Your task to perform on an android device: turn notification dots off Image 0: 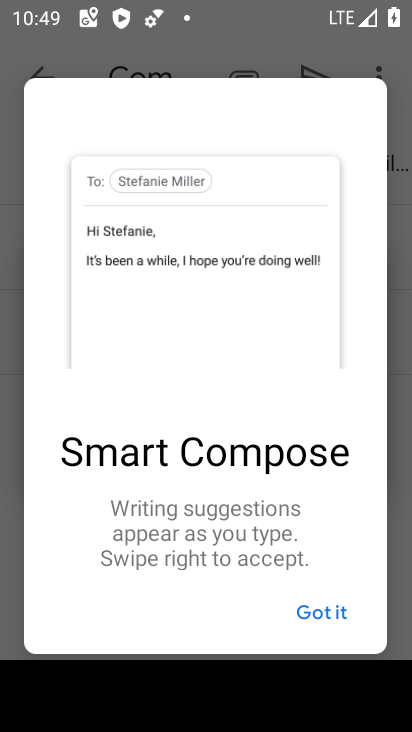
Step 0: press home button
Your task to perform on an android device: turn notification dots off Image 1: 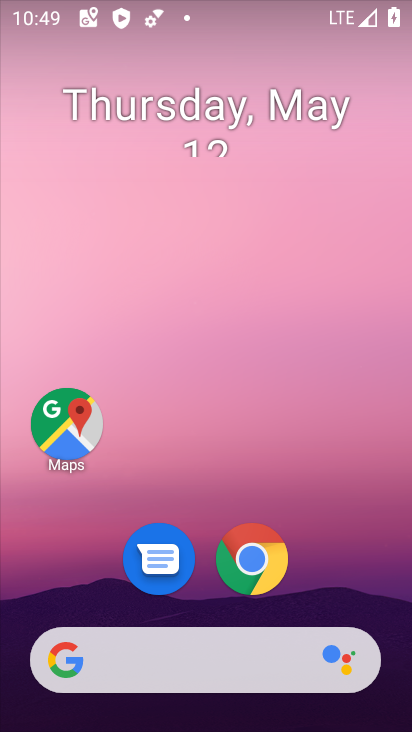
Step 1: drag from (198, 610) to (211, 230)
Your task to perform on an android device: turn notification dots off Image 2: 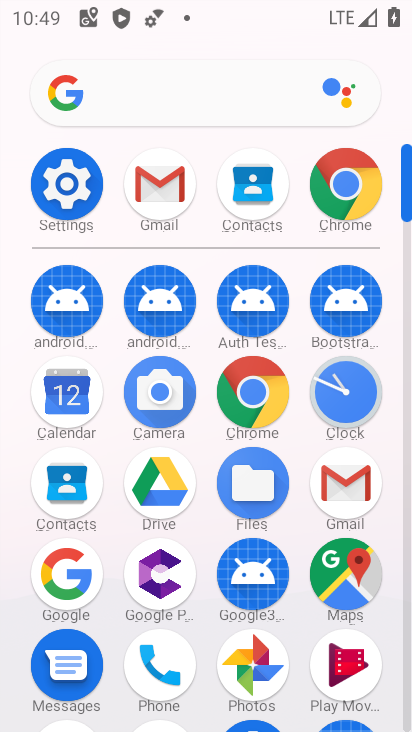
Step 2: click (44, 192)
Your task to perform on an android device: turn notification dots off Image 3: 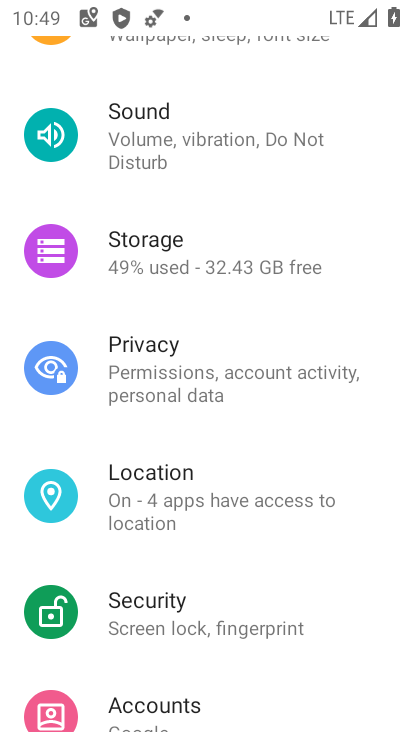
Step 3: drag from (217, 221) to (217, 413)
Your task to perform on an android device: turn notification dots off Image 4: 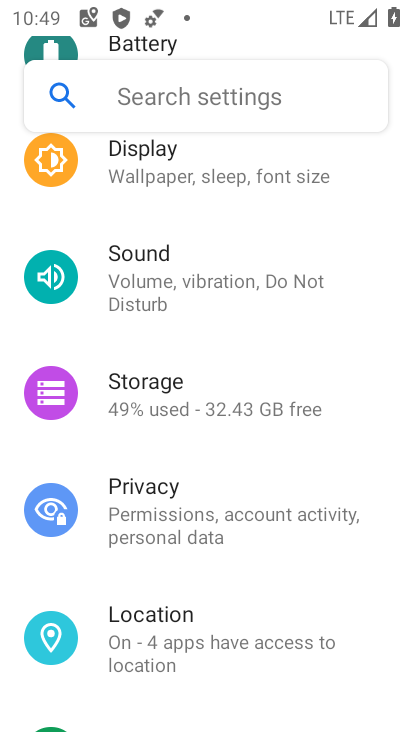
Step 4: drag from (222, 202) to (224, 453)
Your task to perform on an android device: turn notification dots off Image 5: 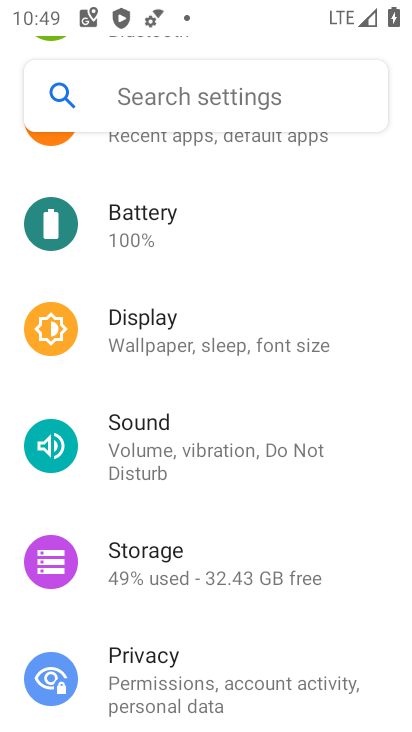
Step 5: drag from (213, 219) to (211, 464)
Your task to perform on an android device: turn notification dots off Image 6: 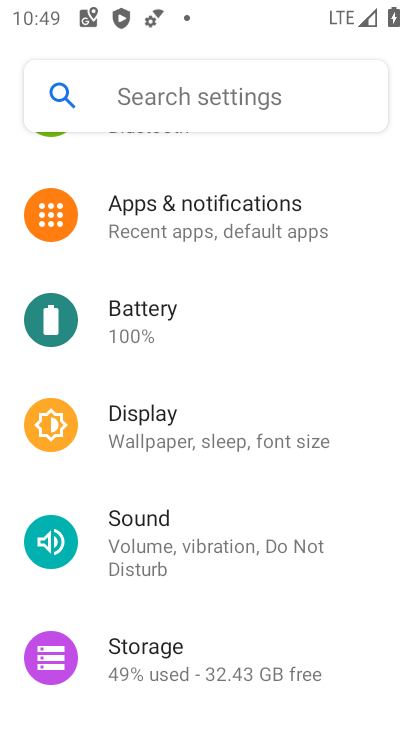
Step 6: click (194, 219)
Your task to perform on an android device: turn notification dots off Image 7: 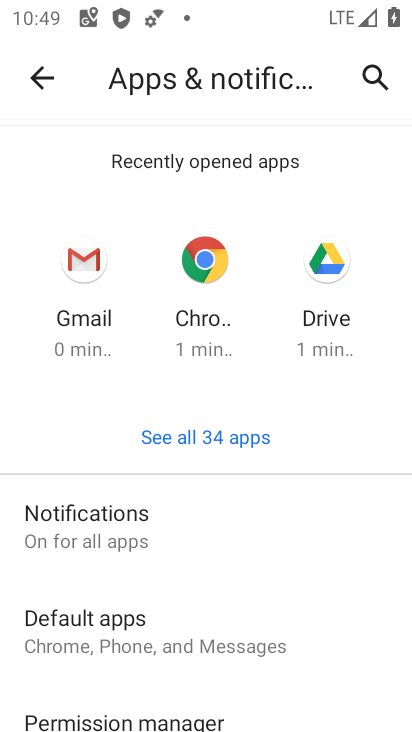
Step 7: click (143, 541)
Your task to perform on an android device: turn notification dots off Image 8: 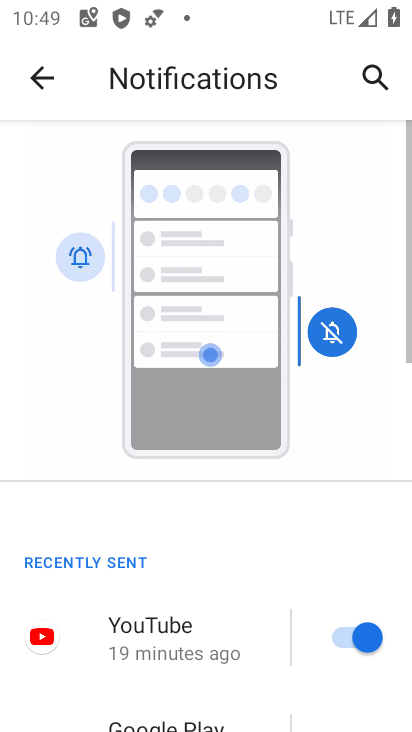
Step 8: drag from (143, 541) to (221, 160)
Your task to perform on an android device: turn notification dots off Image 9: 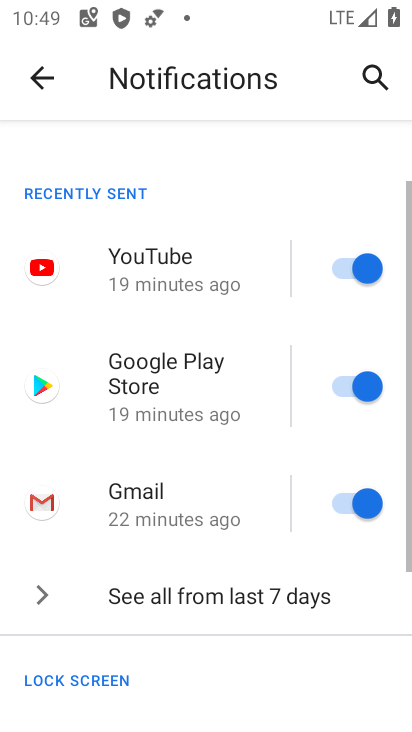
Step 9: drag from (223, 538) to (242, 229)
Your task to perform on an android device: turn notification dots off Image 10: 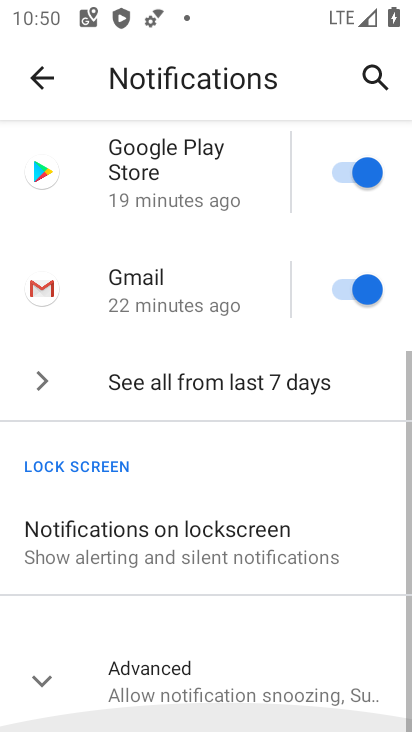
Step 10: click (240, 362)
Your task to perform on an android device: turn notification dots off Image 11: 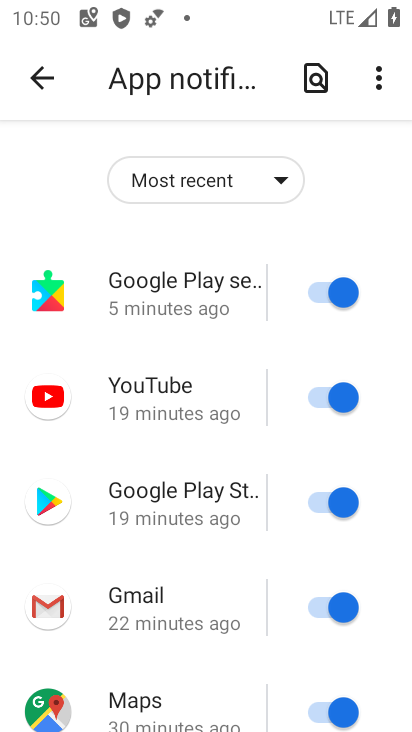
Step 11: click (51, 83)
Your task to perform on an android device: turn notification dots off Image 12: 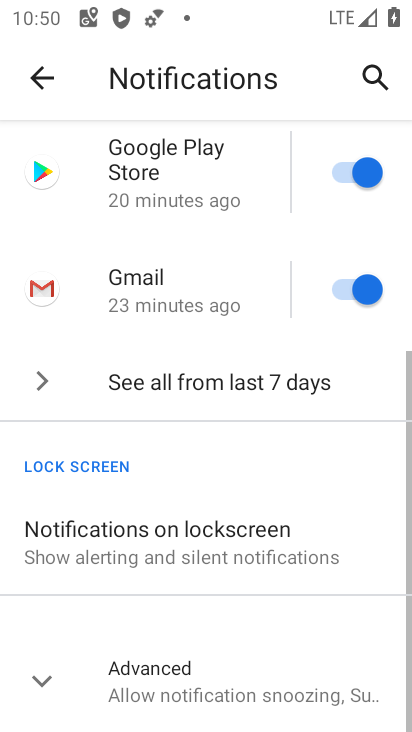
Step 12: drag from (196, 577) to (205, 320)
Your task to perform on an android device: turn notification dots off Image 13: 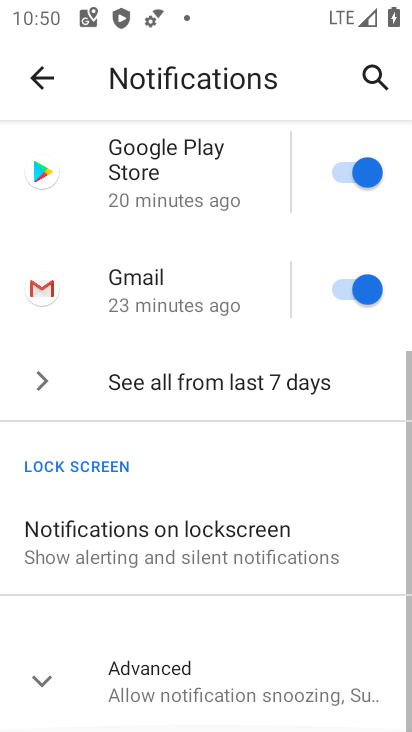
Step 13: click (147, 680)
Your task to perform on an android device: turn notification dots off Image 14: 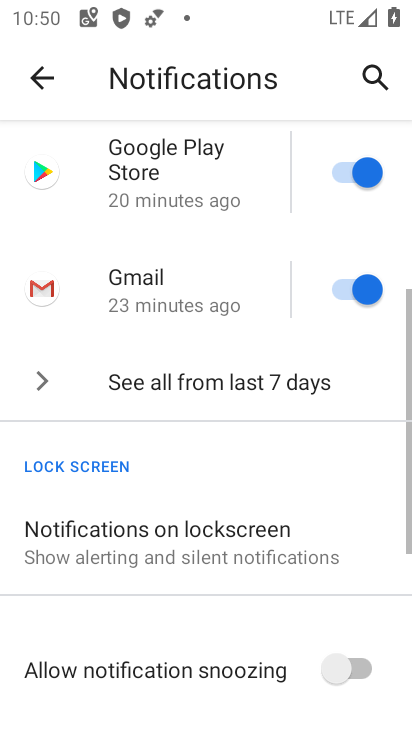
Step 14: task complete